Your task to perform on an android device: Open internet settings Image 0: 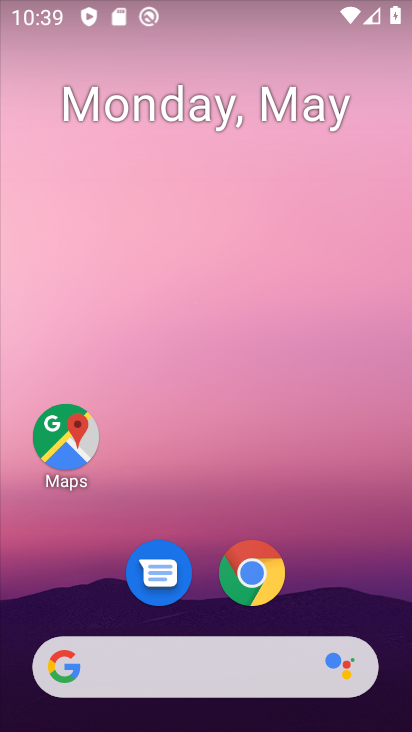
Step 0: click (252, 278)
Your task to perform on an android device: Open internet settings Image 1: 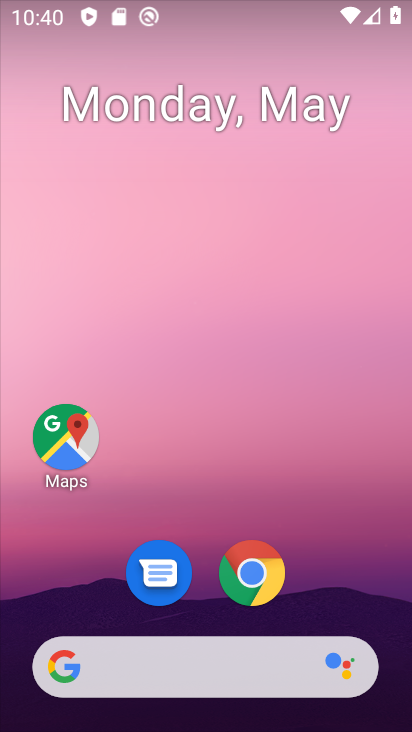
Step 1: drag from (250, 530) to (223, 319)
Your task to perform on an android device: Open internet settings Image 2: 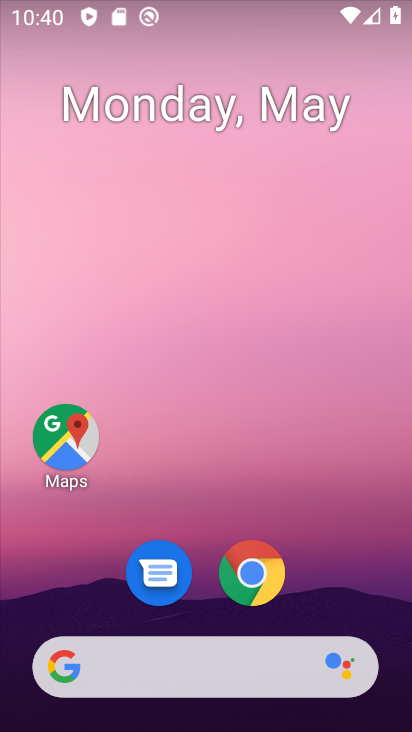
Step 2: drag from (188, 636) to (180, 211)
Your task to perform on an android device: Open internet settings Image 3: 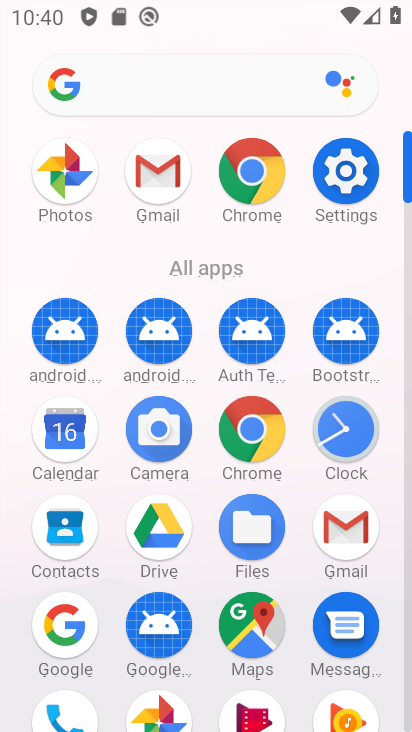
Step 3: drag from (222, 641) to (221, 199)
Your task to perform on an android device: Open internet settings Image 4: 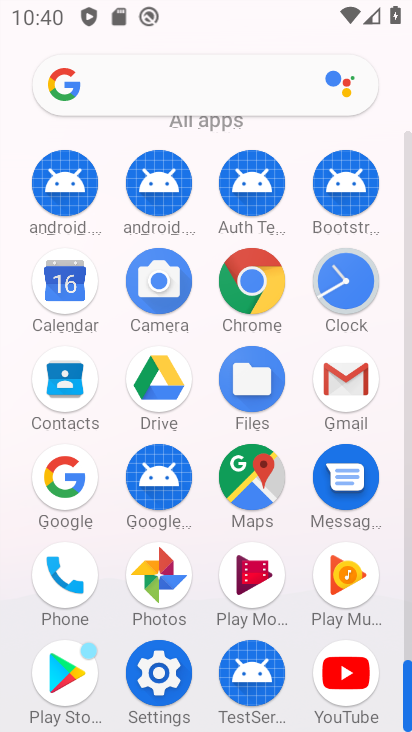
Step 4: click (352, 166)
Your task to perform on an android device: Open internet settings Image 5: 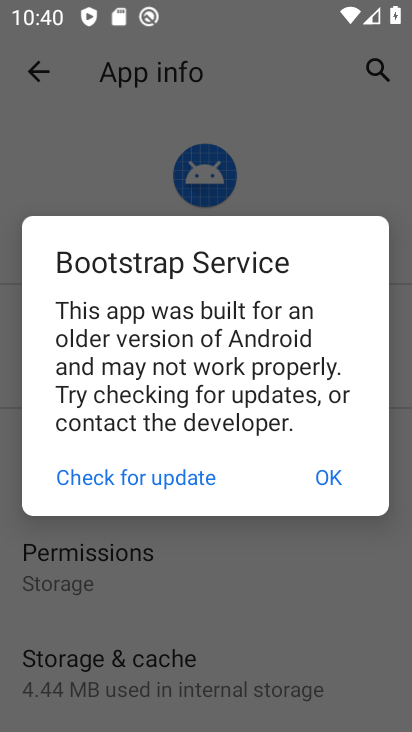
Step 5: click (340, 475)
Your task to perform on an android device: Open internet settings Image 6: 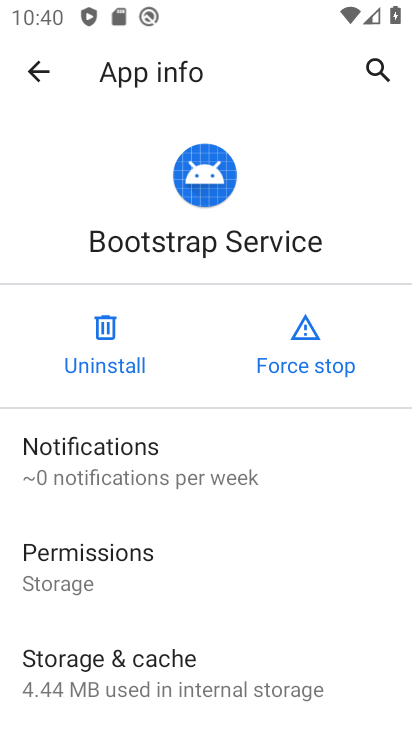
Step 6: click (31, 76)
Your task to perform on an android device: Open internet settings Image 7: 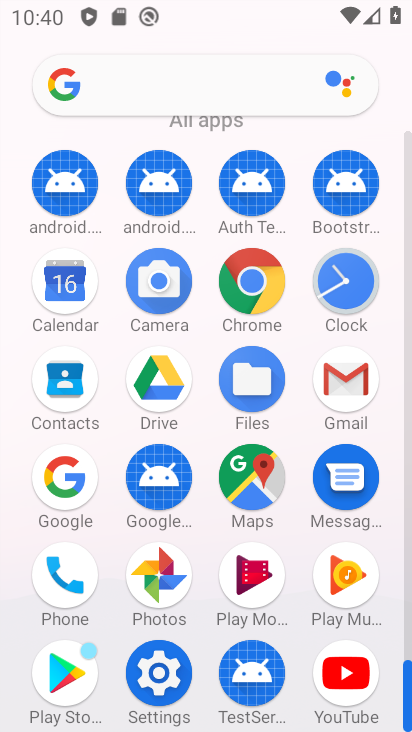
Step 7: click (160, 669)
Your task to perform on an android device: Open internet settings Image 8: 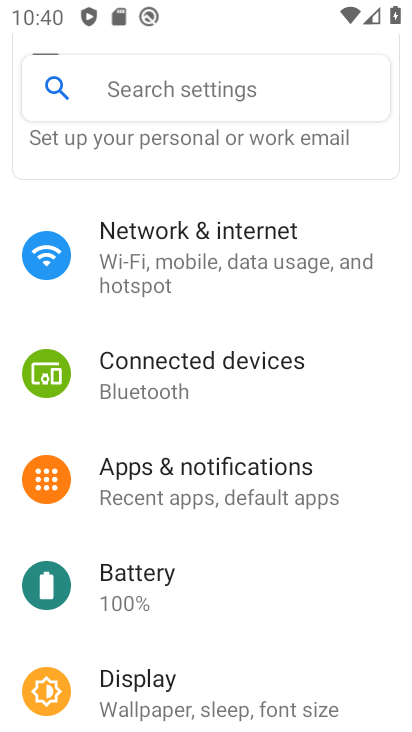
Step 8: click (171, 235)
Your task to perform on an android device: Open internet settings Image 9: 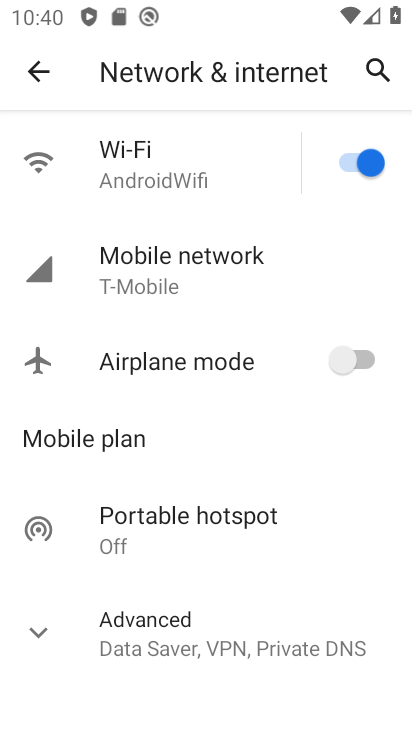
Step 9: click (195, 644)
Your task to perform on an android device: Open internet settings Image 10: 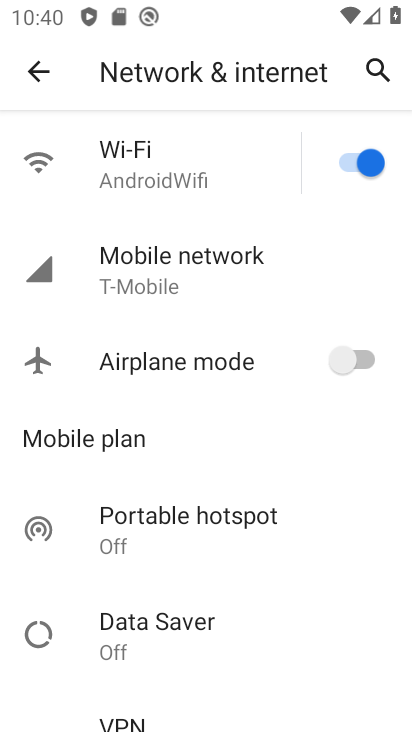
Step 10: task complete